Your task to perform on an android device: turn pop-ups on in chrome Image 0: 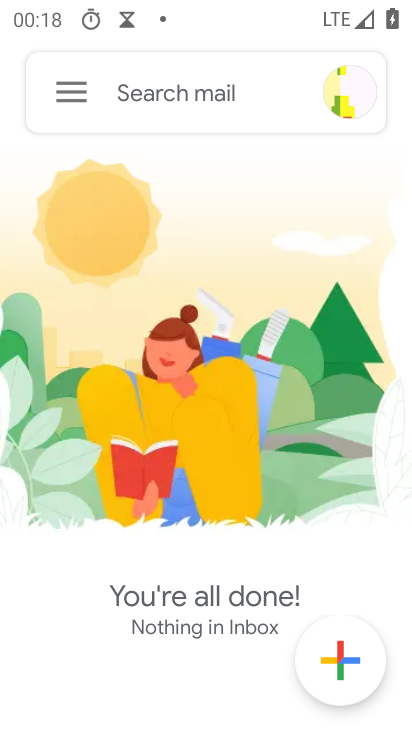
Step 0: press home button
Your task to perform on an android device: turn pop-ups on in chrome Image 1: 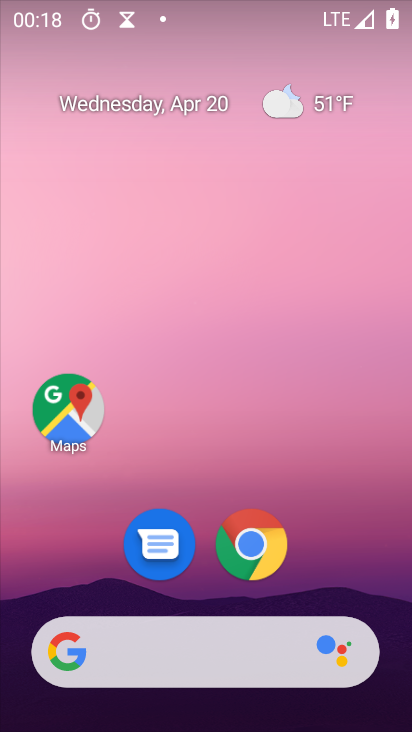
Step 1: click (255, 552)
Your task to perform on an android device: turn pop-ups on in chrome Image 2: 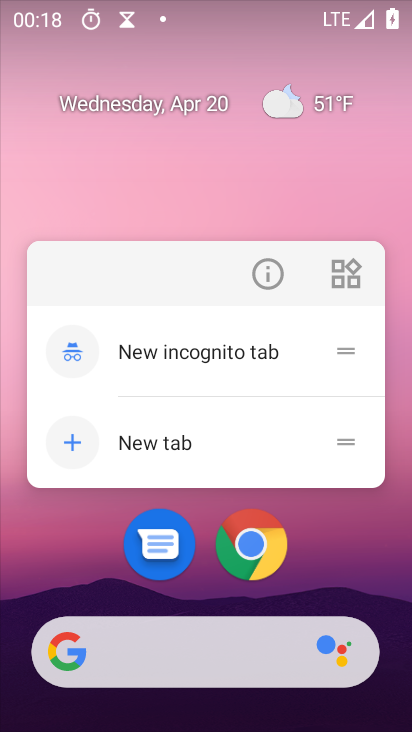
Step 2: click (261, 553)
Your task to perform on an android device: turn pop-ups on in chrome Image 3: 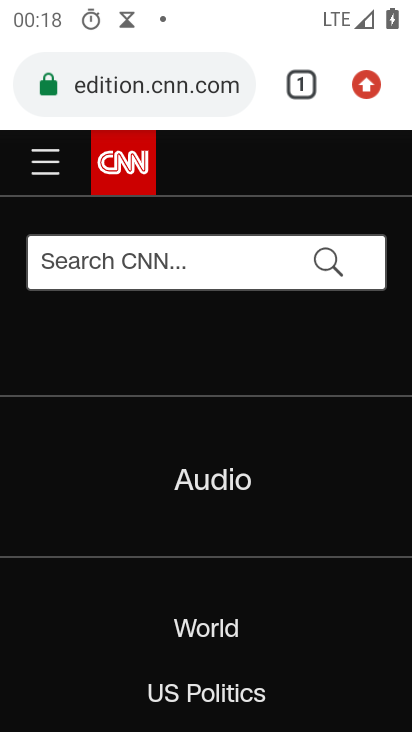
Step 3: click (362, 84)
Your task to perform on an android device: turn pop-ups on in chrome Image 4: 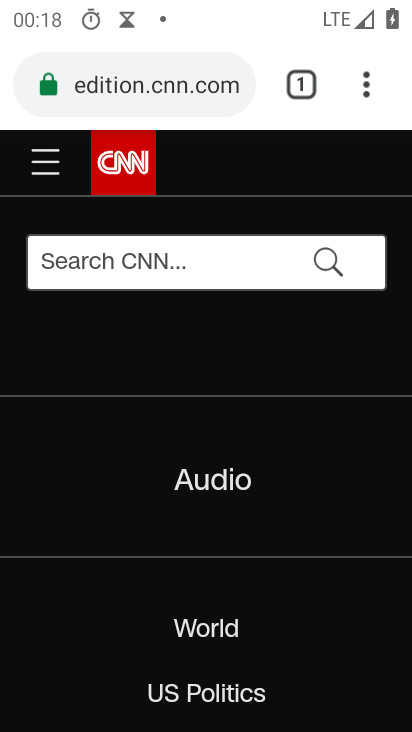
Step 4: click (373, 72)
Your task to perform on an android device: turn pop-ups on in chrome Image 5: 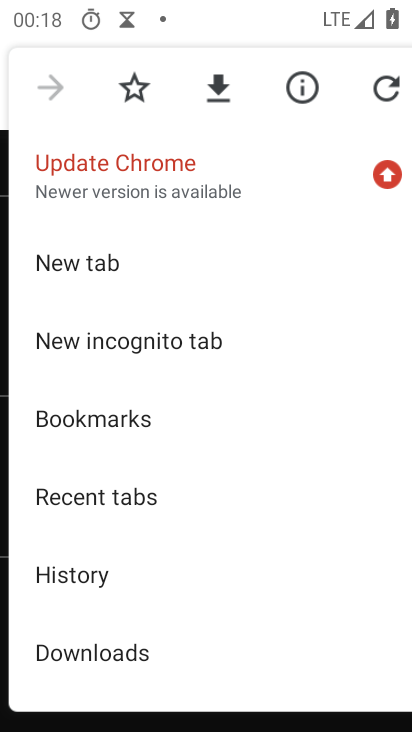
Step 5: drag from (142, 624) to (182, 474)
Your task to perform on an android device: turn pop-ups on in chrome Image 6: 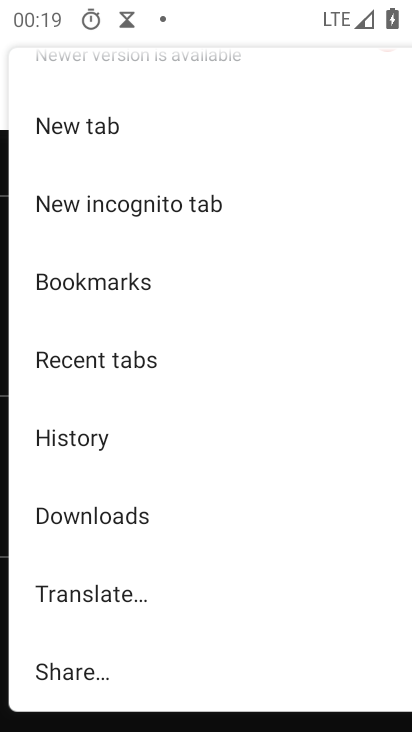
Step 6: drag from (164, 597) to (183, 483)
Your task to perform on an android device: turn pop-ups on in chrome Image 7: 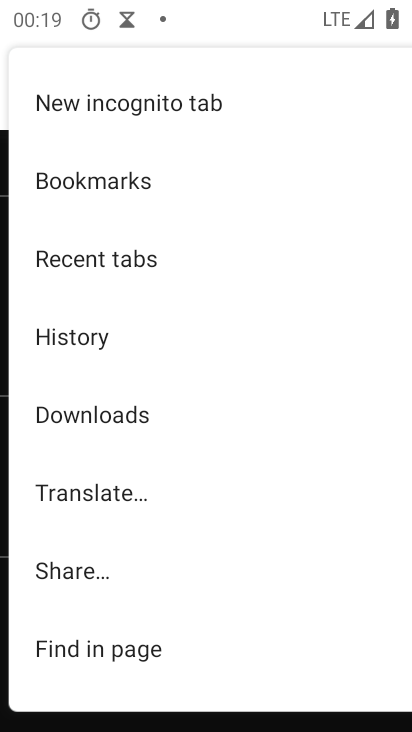
Step 7: drag from (137, 626) to (179, 497)
Your task to perform on an android device: turn pop-ups on in chrome Image 8: 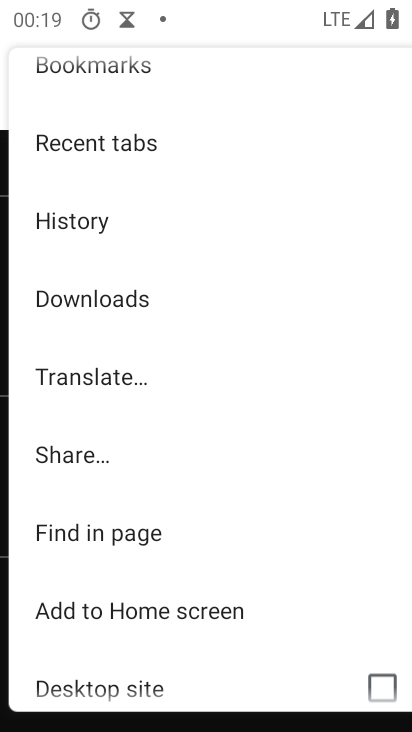
Step 8: drag from (164, 600) to (182, 500)
Your task to perform on an android device: turn pop-ups on in chrome Image 9: 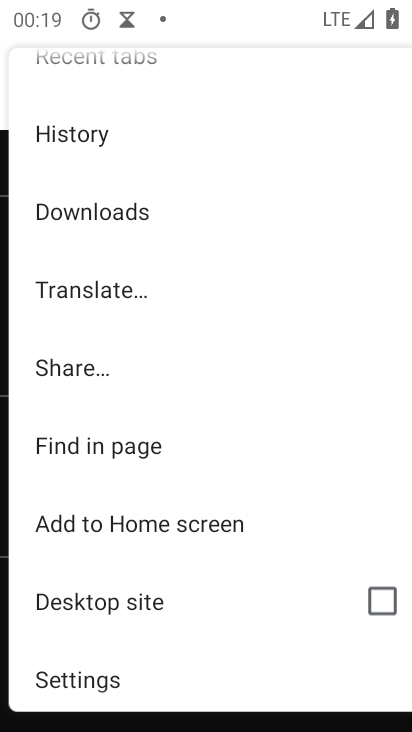
Step 9: click (124, 674)
Your task to perform on an android device: turn pop-ups on in chrome Image 10: 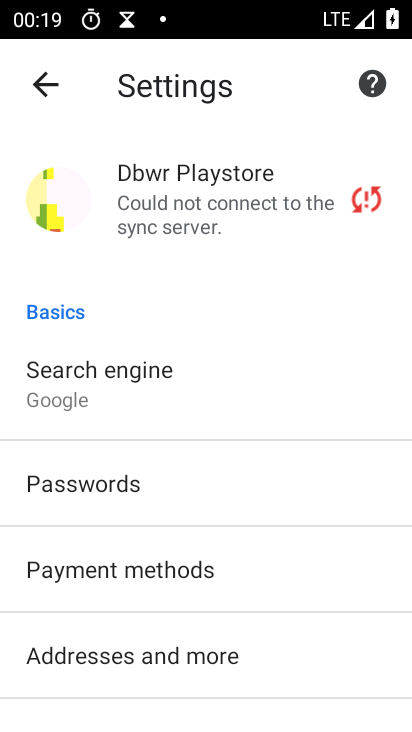
Step 10: drag from (99, 662) to (110, 552)
Your task to perform on an android device: turn pop-ups on in chrome Image 11: 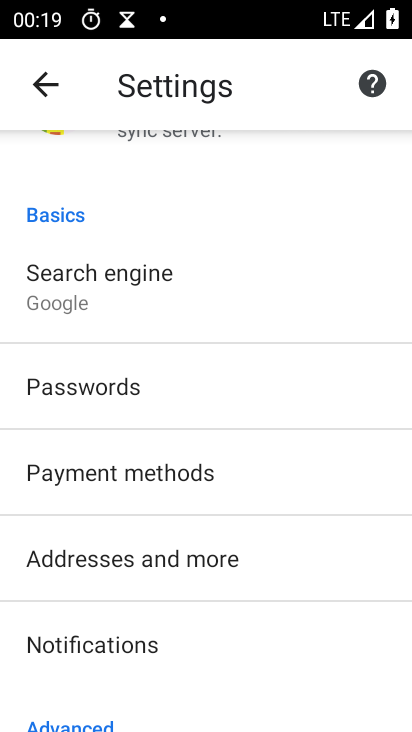
Step 11: drag from (97, 604) to (103, 527)
Your task to perform on an android device: turn pop-ups on in chrome Image 12: 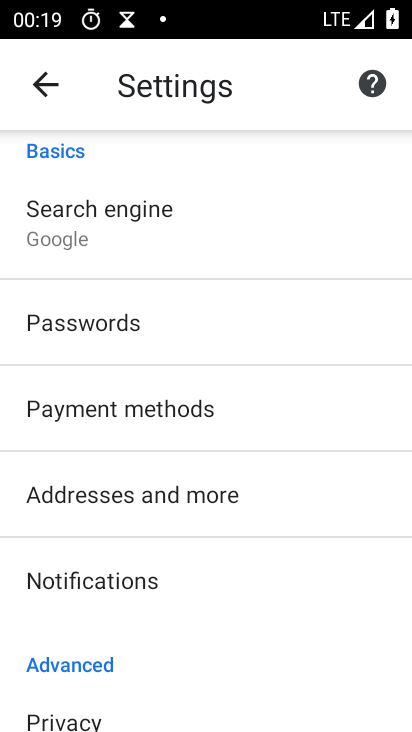
Step 12: drag from (78, 626) to (94, 538)
Your task to perform on an android device: turn pop-ups on in chrome Image 13: 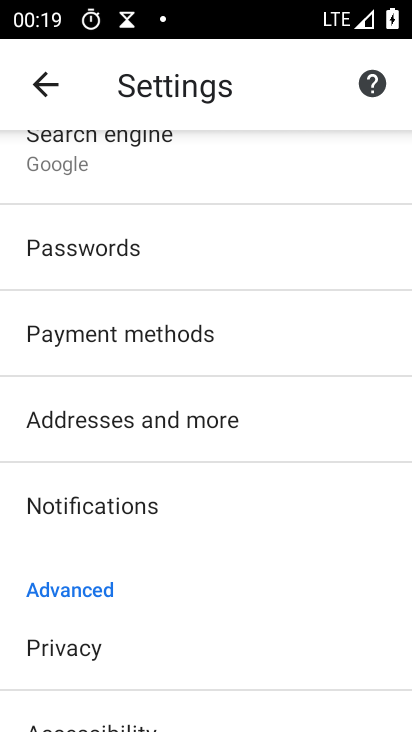
Step 13: drag from (151, 620) to (190, 481)
Your task to perform on an android device: turn pop-ups on in chrome Image 14: 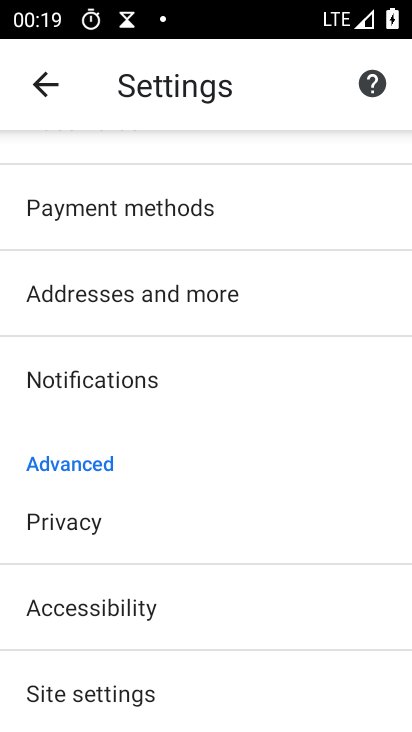
Step 14: click (150, 719)
Your task to perform on an android device: turn pop-ups on in chrome Image 15: 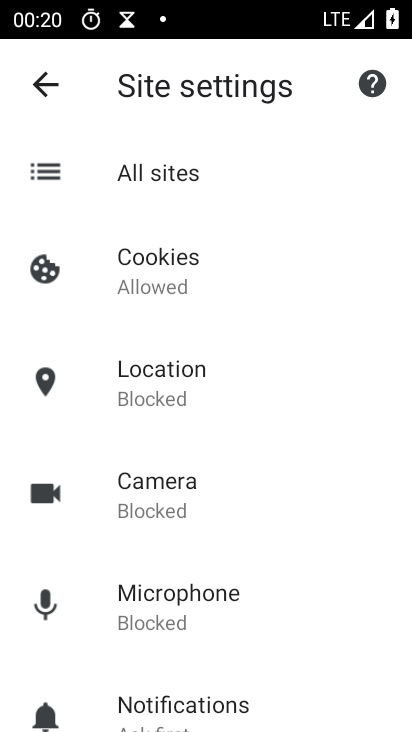
Step 15: drag from (251, 610) to (265, 493)
Your task to perform on an android device: turn pop-ups on in chrome Image 16: 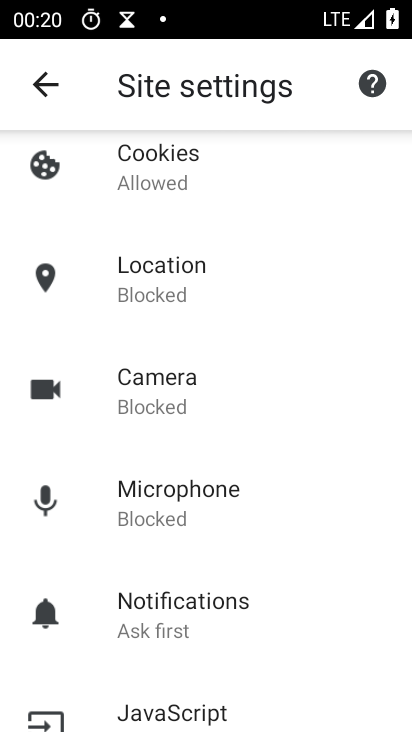
Step 16: drag from (227, 602) to (208, 525)
Your task to perform on an android device: turn pop-ups on in chrome Image 17: 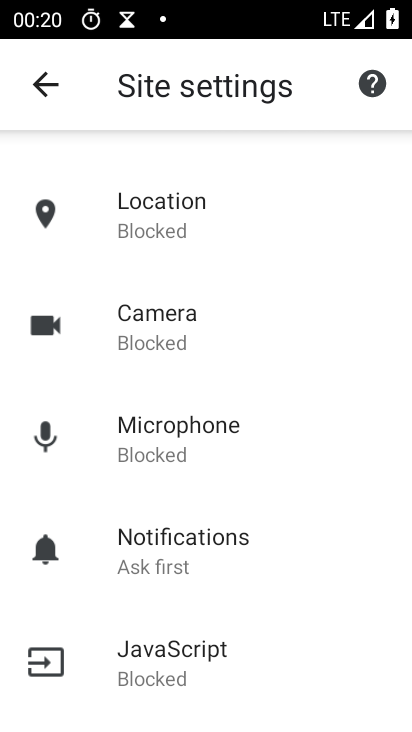
Step 17: drag from (185, 606) to (187, 516)
Your task to perform on an android device: turn pop-ups on in chrome Image 18: 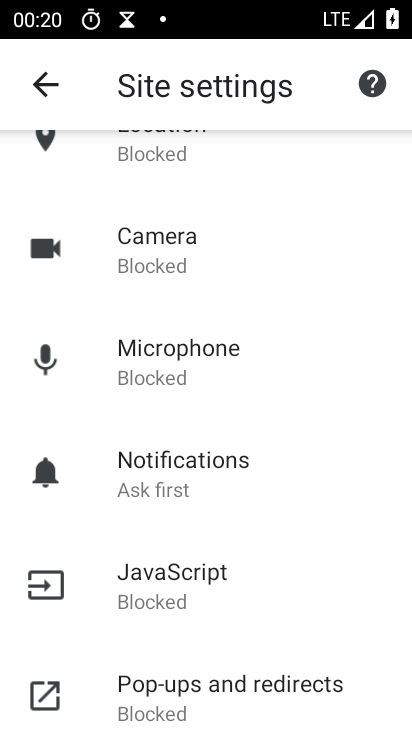
Step 18: click (215, 684)
Your task to perform on an android device: turn pop-ups on in chrome Image 19: 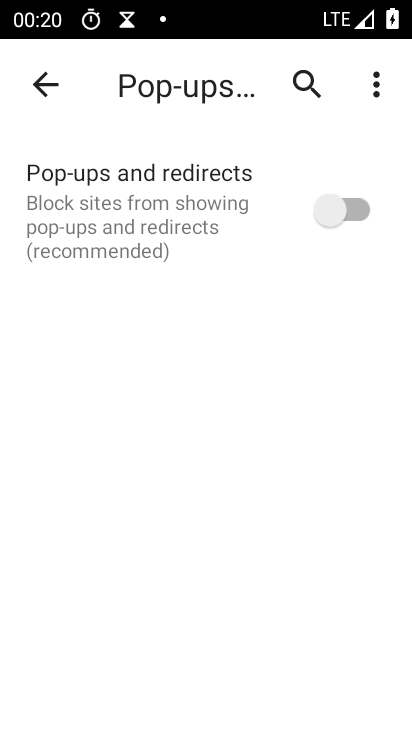
Step 19: click (364, 207)
Your task to perform on an android device: turn pop-ups on in chrome Image 20: 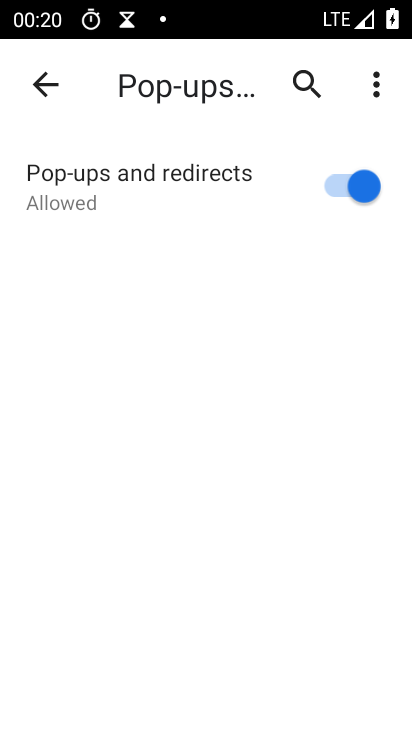
Step 20: task complete